Your task to perform on an android device: What is the news today? Image 0: 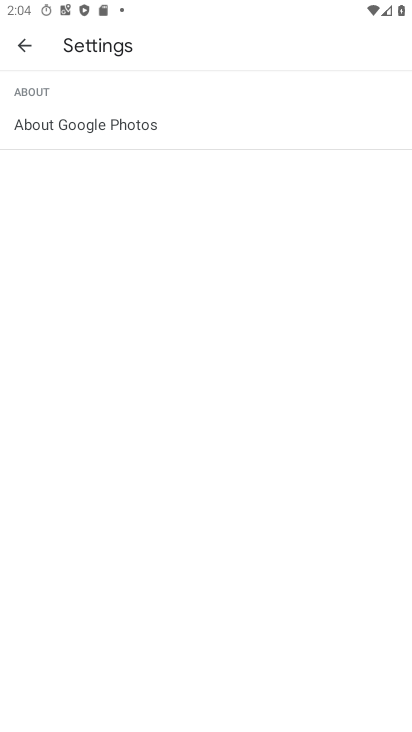
Step 0: press home button
Your task to perform on an android device: What is the news today? Image 1: 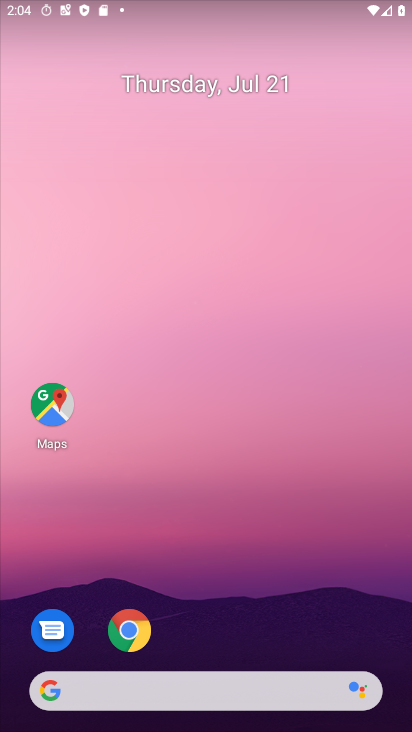
Step 1: click (133, 674)
Your task to perform on an android device: What is the news today? Image 2: 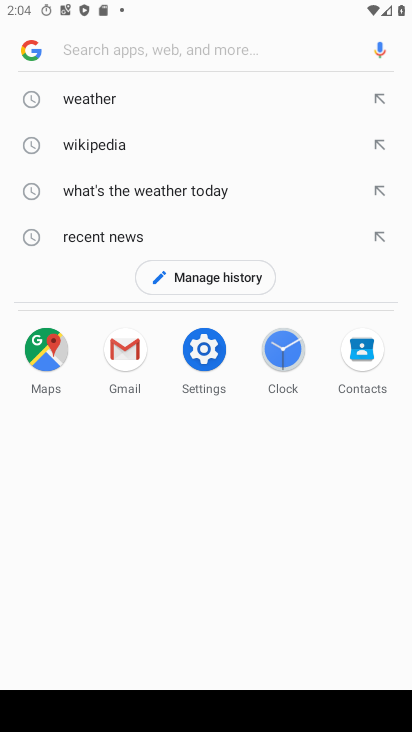
Step 2: click (23, 56)
Your task to perform on an android device: What is the news today? Image 3: 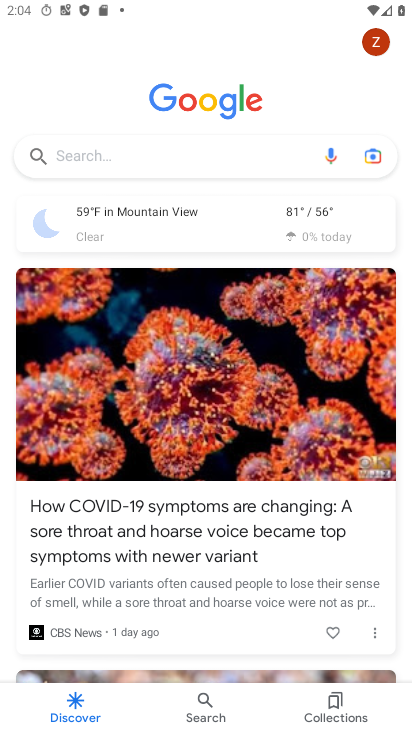
Step 3: task complete